Your task to perform on an android device: see creations saved in the google photos Image 0: 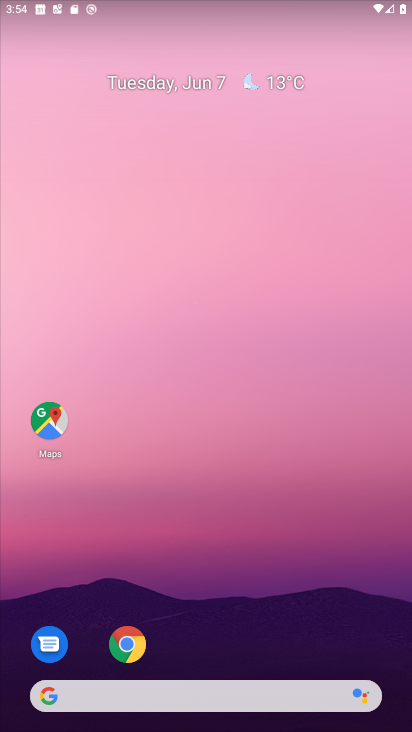
Step 0: drag from (342, 626) to (388, 172)
Your task to perform on an android device: see creations saved in the google photos Image 1: 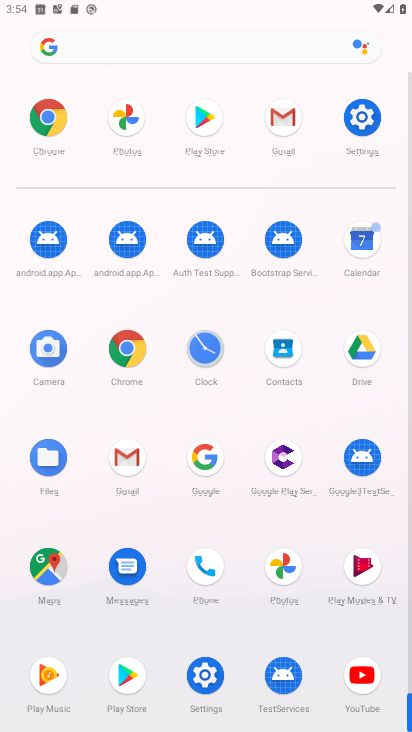
Step 1: click (289, 567)
Your task to perform on an android device: see creations saved in the google photos Image 2: 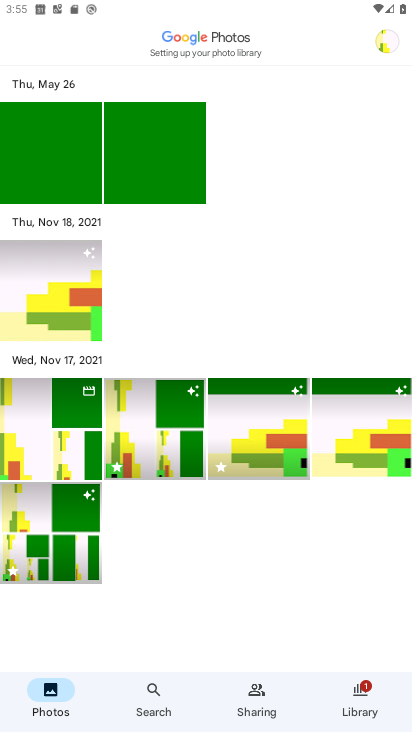
Step 2: click (168, 700)
Your task to perform on an android device: see creations saved in the google photos Image 3: 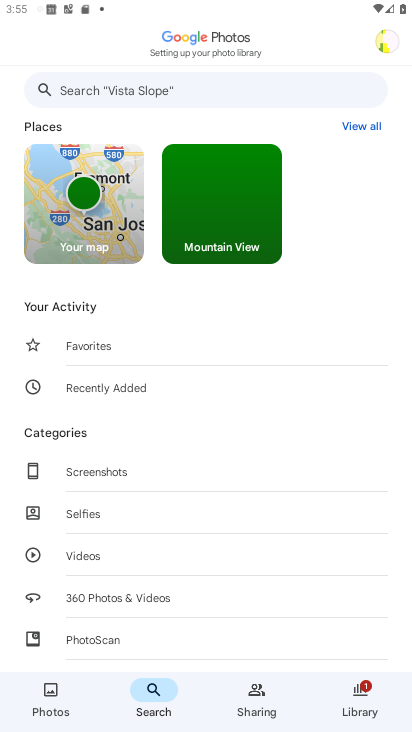
Step 3: drag from (295, 528) to (316, 368)
Your task to perform on an android device: see creations saved in the google photos Image 4: 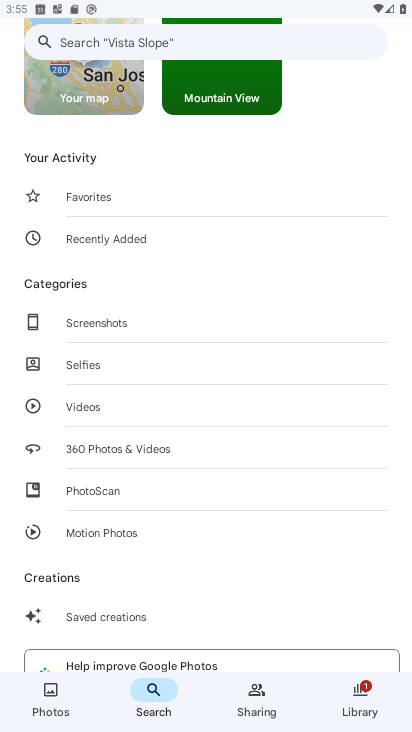
Step 4: click (147, 615)
Your task to perform on an android device: see creations saved in the google photos Image 5: 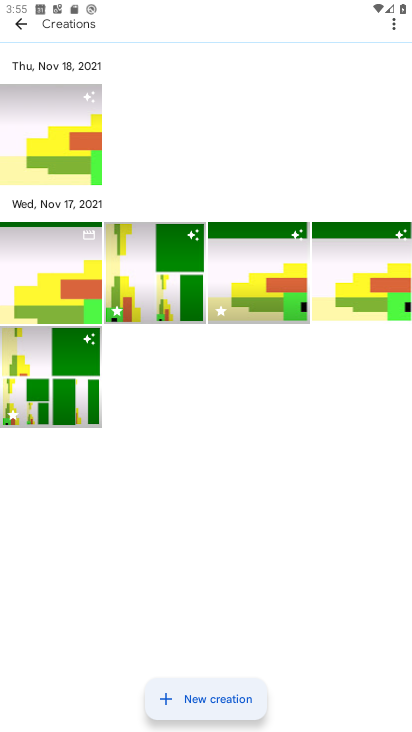
Step 5: task complete